Your task to perform on an android device: Go to sound settings Image 0: 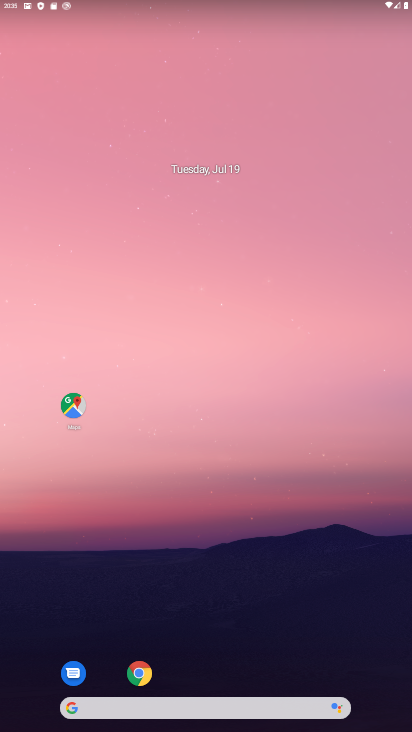
Step 0: drag from (219, 664) to (282, 177)
Your task to perform on an android device: Go to sound settings Image 1: 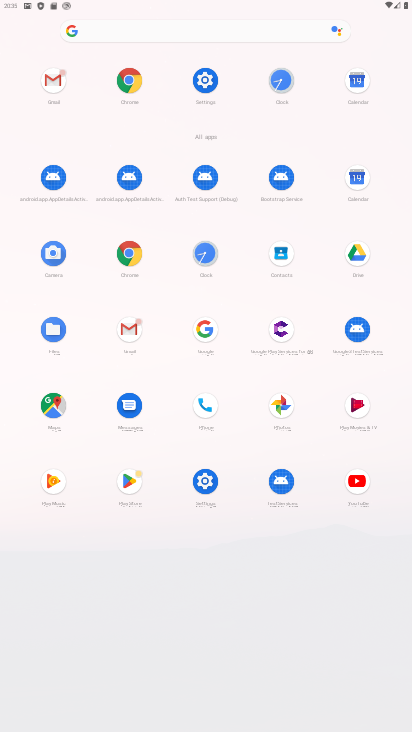
Step 1: click (207, 487)
Your task to perform on an android device: Go to sound settings Image 2: 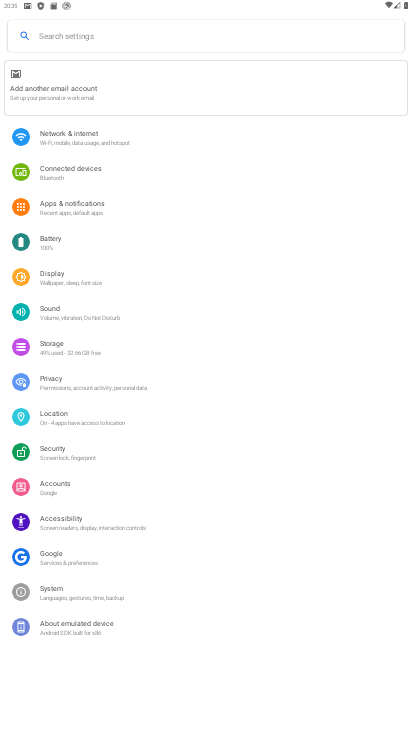
Step 2: click (100, 315)
Your task to perform on an android device: Go to sound settings Image 3: 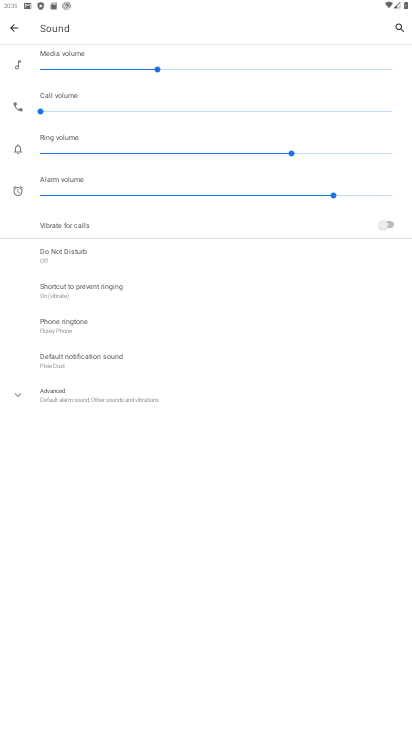
Step 3: task complete